Your task to perform on an android device: When is my next meeting? Image 0: 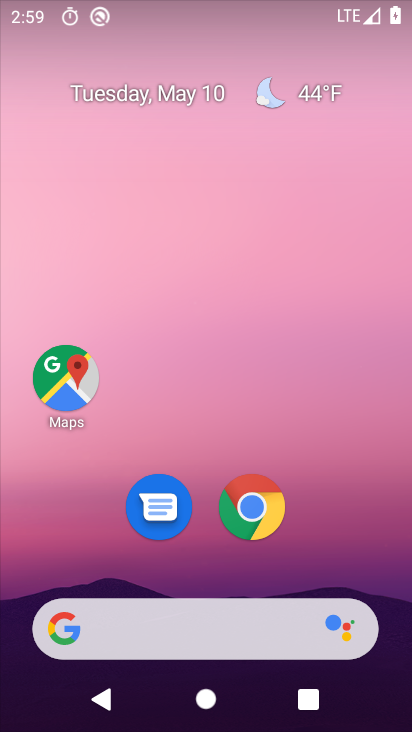
Step 0: drag from (184, 593) to (243, 170)
Your task to perform on an android device: When is my next meeting? Image 1: 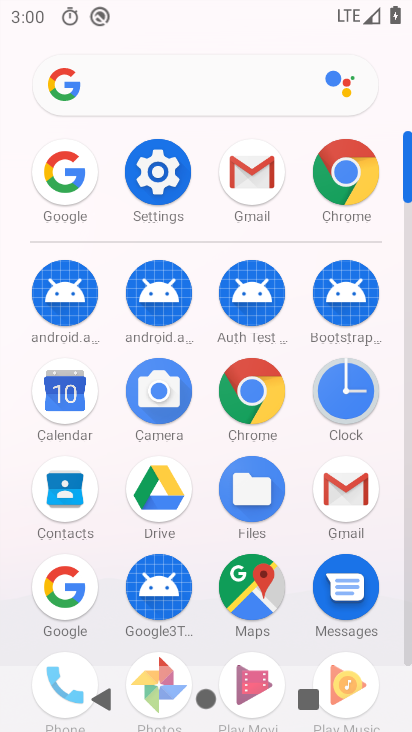
Step 1: click (71, 400)
Your task to perform on an android device: When is my next meeting? Image 2: 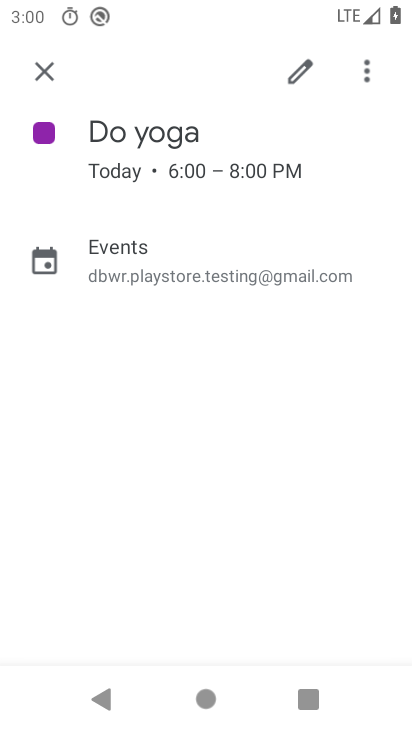
Step 2: click (52, 65)
Your task to perform on an android device: When is my next meeting? Image 3: 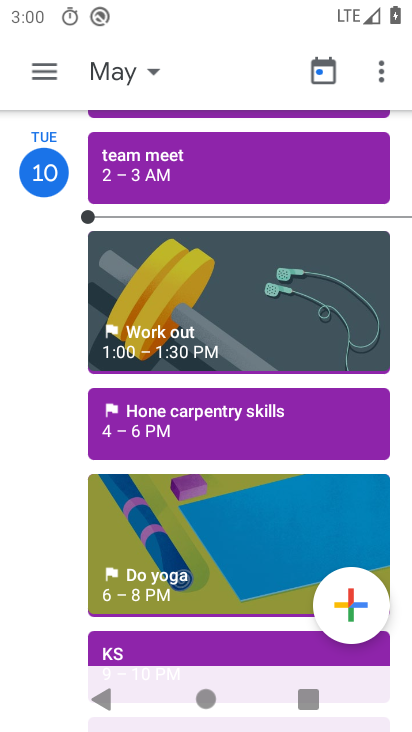
Step 3: click (169, 437)
Your task to perform on an android device: When is my next meeting? Image 4: 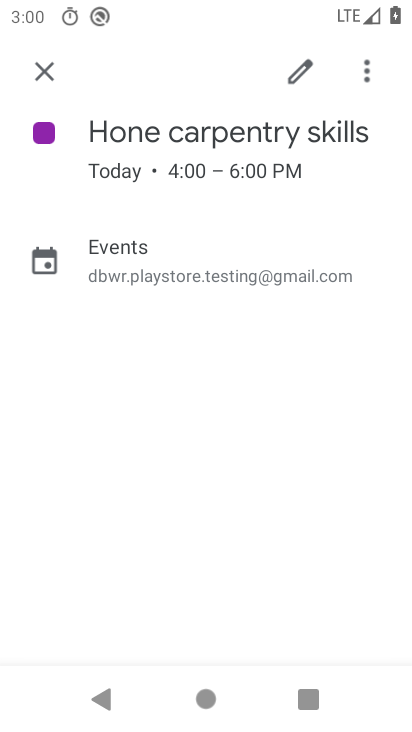
Step 4: task complete